Your task to perform on an android device: open chrome privacy settings Image 0: 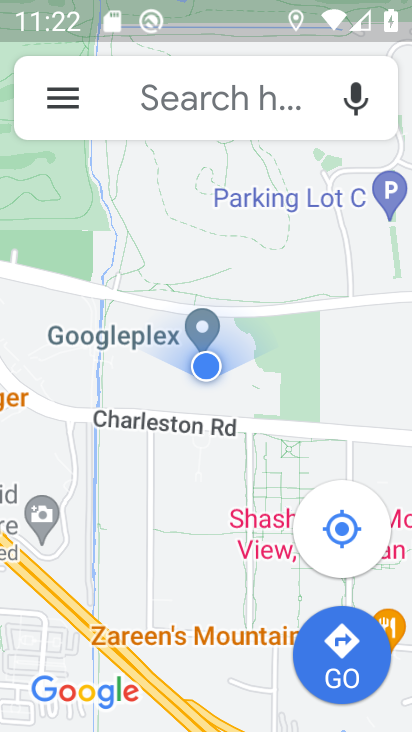
Step 0: press home button
Your task to perform on an android device: open chrome privacy settings Image 1: 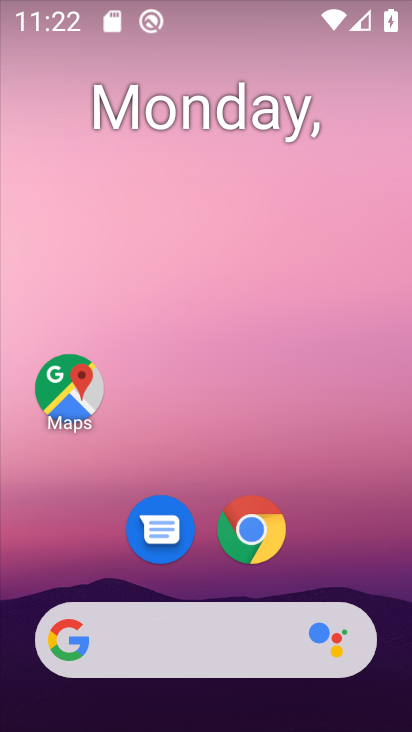
Step 1: click (269, 523)
Your task to perform on an android device: open chrome privacy settings Image 2: 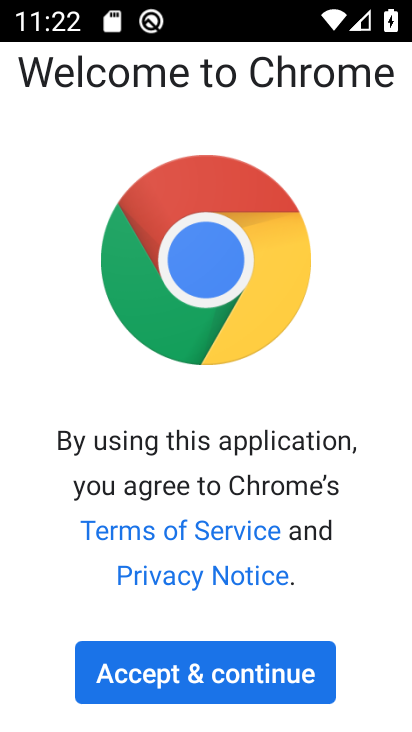
Step 2: click (232, 691)
Your task to perform on an android device: open chrome privacy settings Image 3: 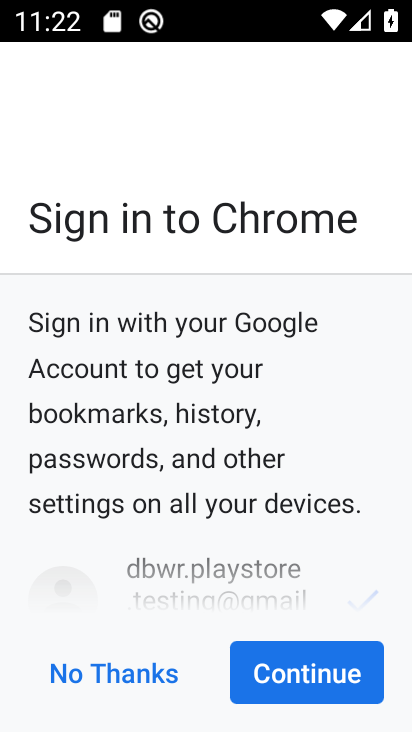
Step 3: click (271, 677)
Your task to perform on an android device: open chrome privacy settings Image 4: 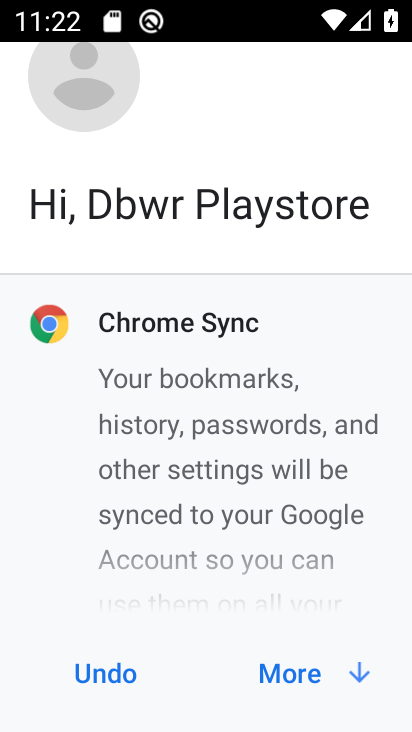
Step 4: click (271, 677)
Your task to perform on an android device: open chrome privacy settings Image 5: 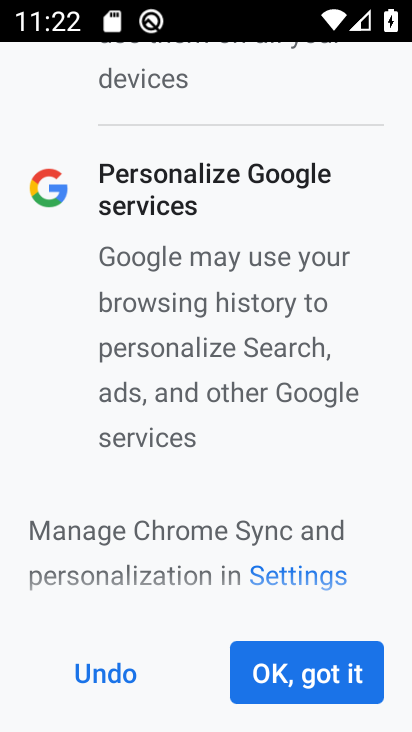
Step 5: click (271, 677)
Your task to perform on an android device: open chrome privacy settings Image 6: 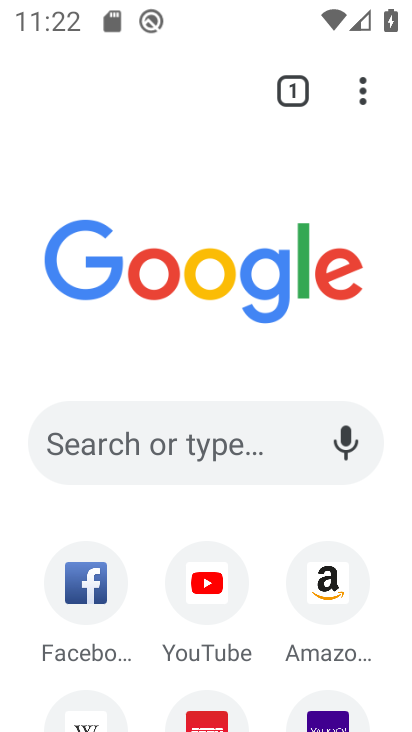
Step 6: click (365, 80)
Your task to perform on an android device: open chrome privacy settings Image 7: 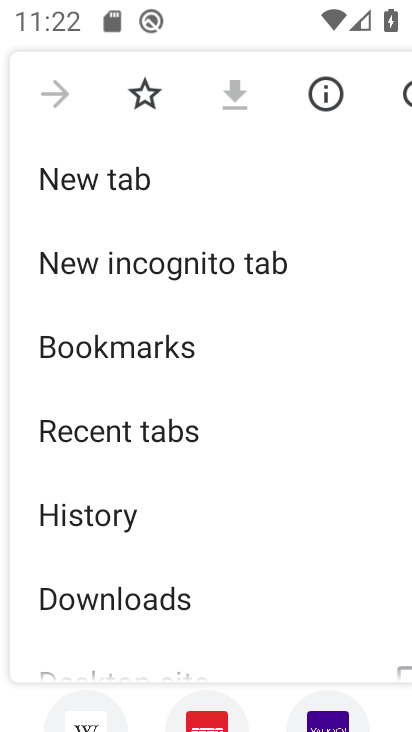
Step 7: drag from (254, 587) to (270, 259)
Your task to perform on an android device: open chrome privacy settings Image 8: 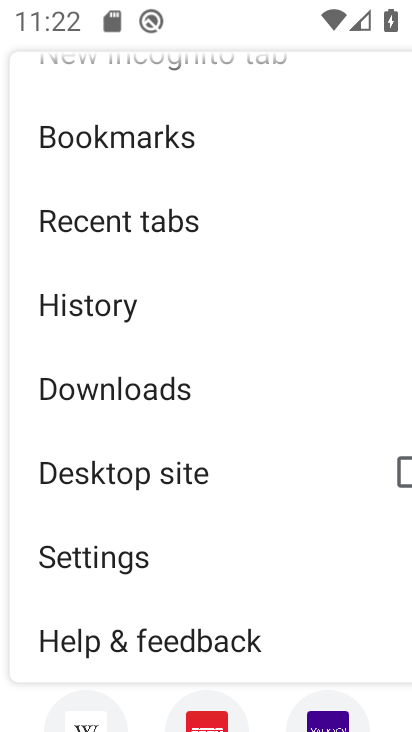
Step 8: click (147, 552)
Your task to perform on an android device: open chrome privacy settings Image 9: 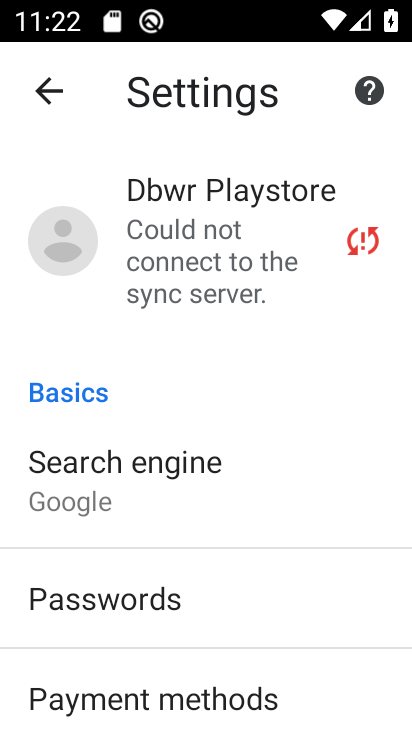
Step 9: drag from (267, 570) to (244, 311)
Your task to perform on an android device: open chrome privacy settings Image 10: 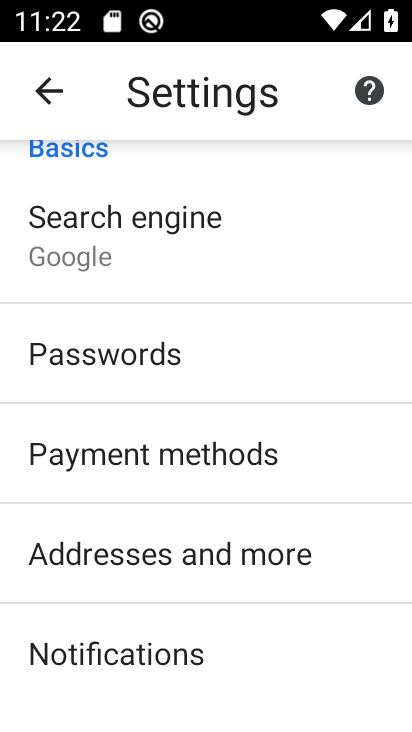
Step 10: drag from (258, 653) to (257, 365)
Your task to perform on an android device: open chrome privacy settings Image 11: 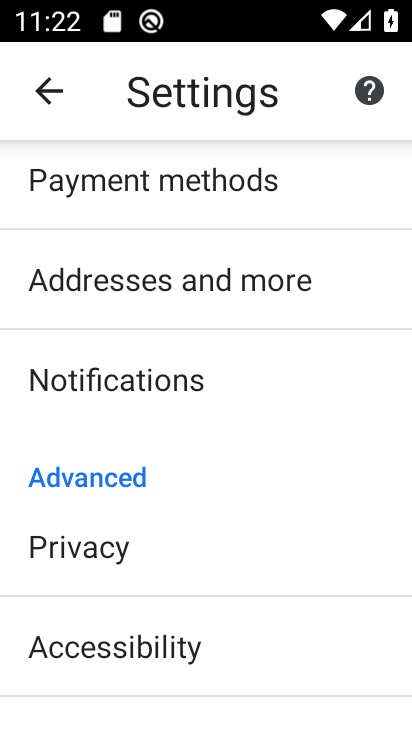
Step 11: click (156, 560)
Your task to perform on an android device: open chrome privacy settings Image 12: 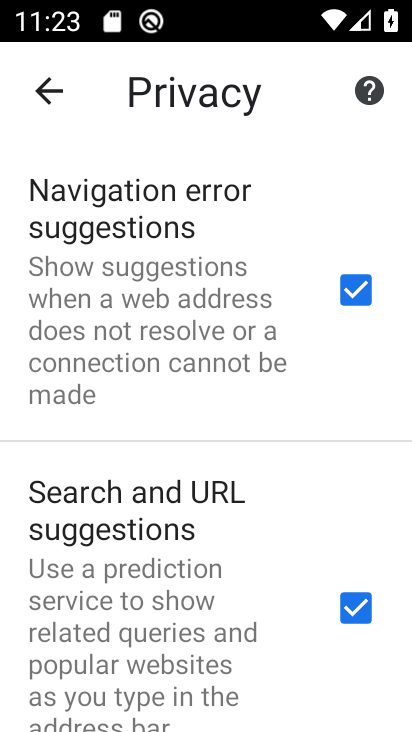
Step 12: task complete